Your task to perform on an android device: Open Android settings Image 0: 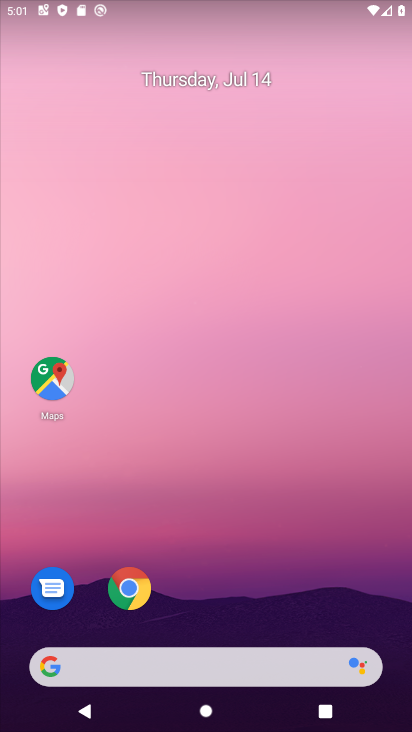
Step 0: drag from (214, 586) to (213, 210)
Your task to perform on an android device: Open Android settings Image 1: 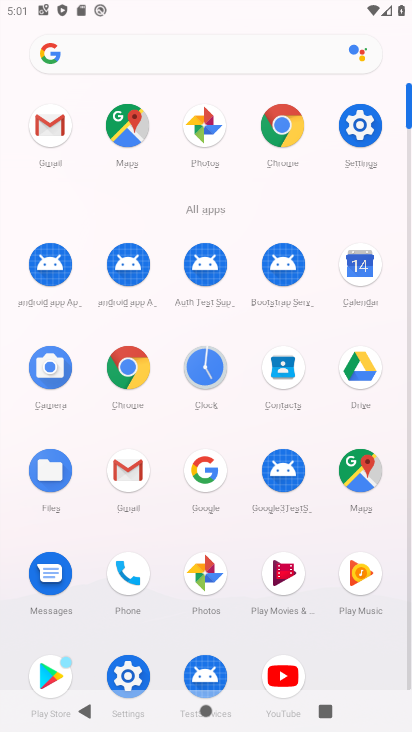
Step 1: click (357, 126)
Your task to perform on an android device: Open Android settings Image 2: 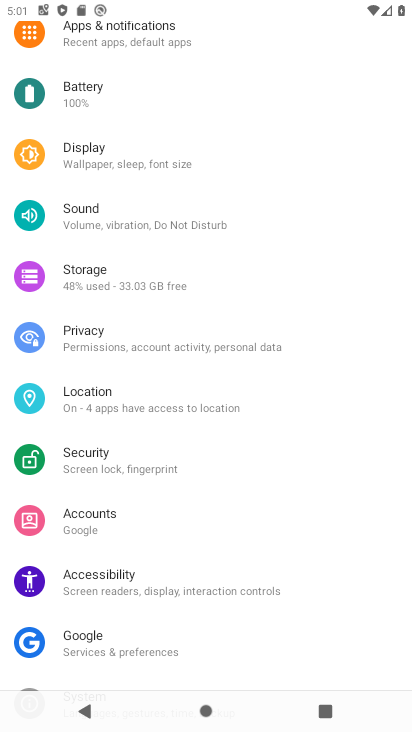
Step 2: task complete